Your task to perform on an android device: Open the phone app and click the voicemail tab. Image 0: 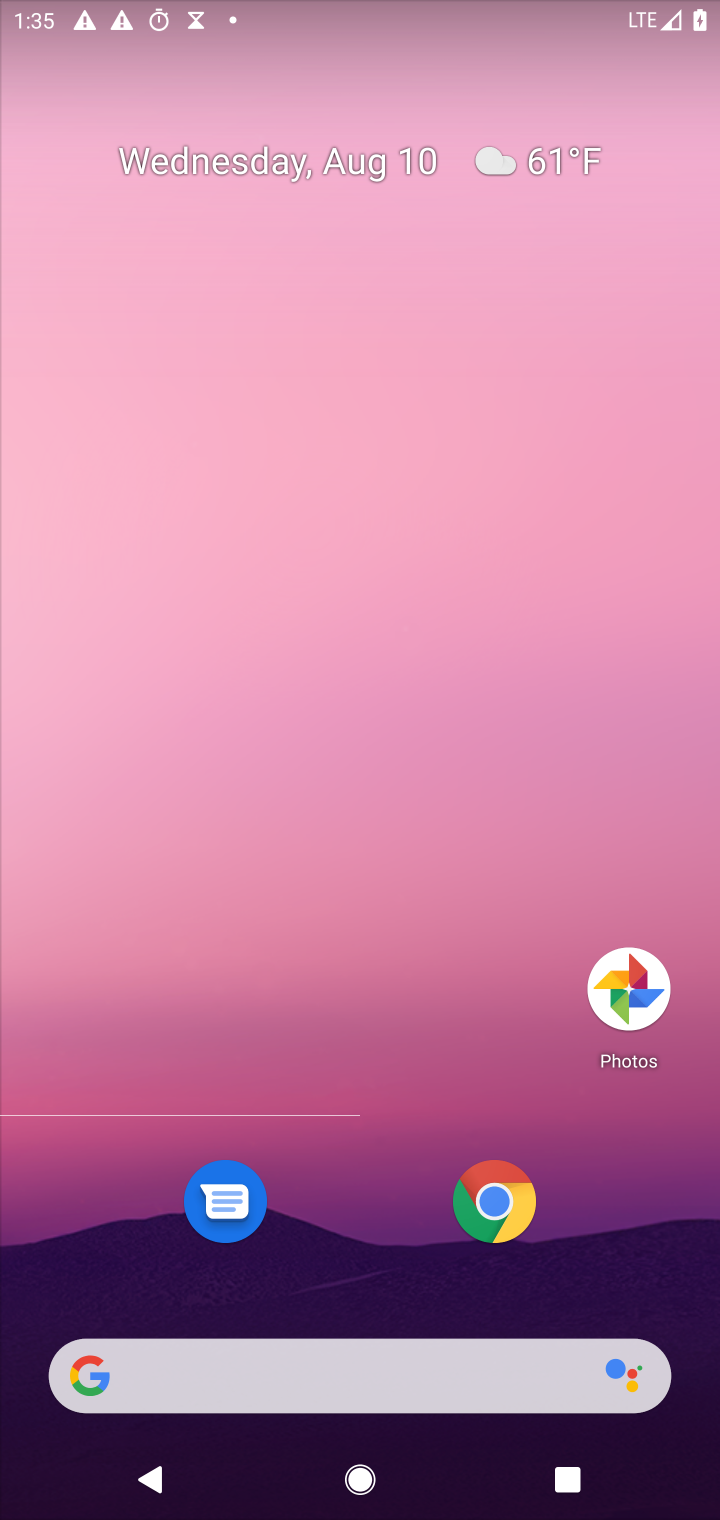
Step 0: press home button
Your task to perform on an android device: Open the phone app and click the voicemail tab. Image 1: 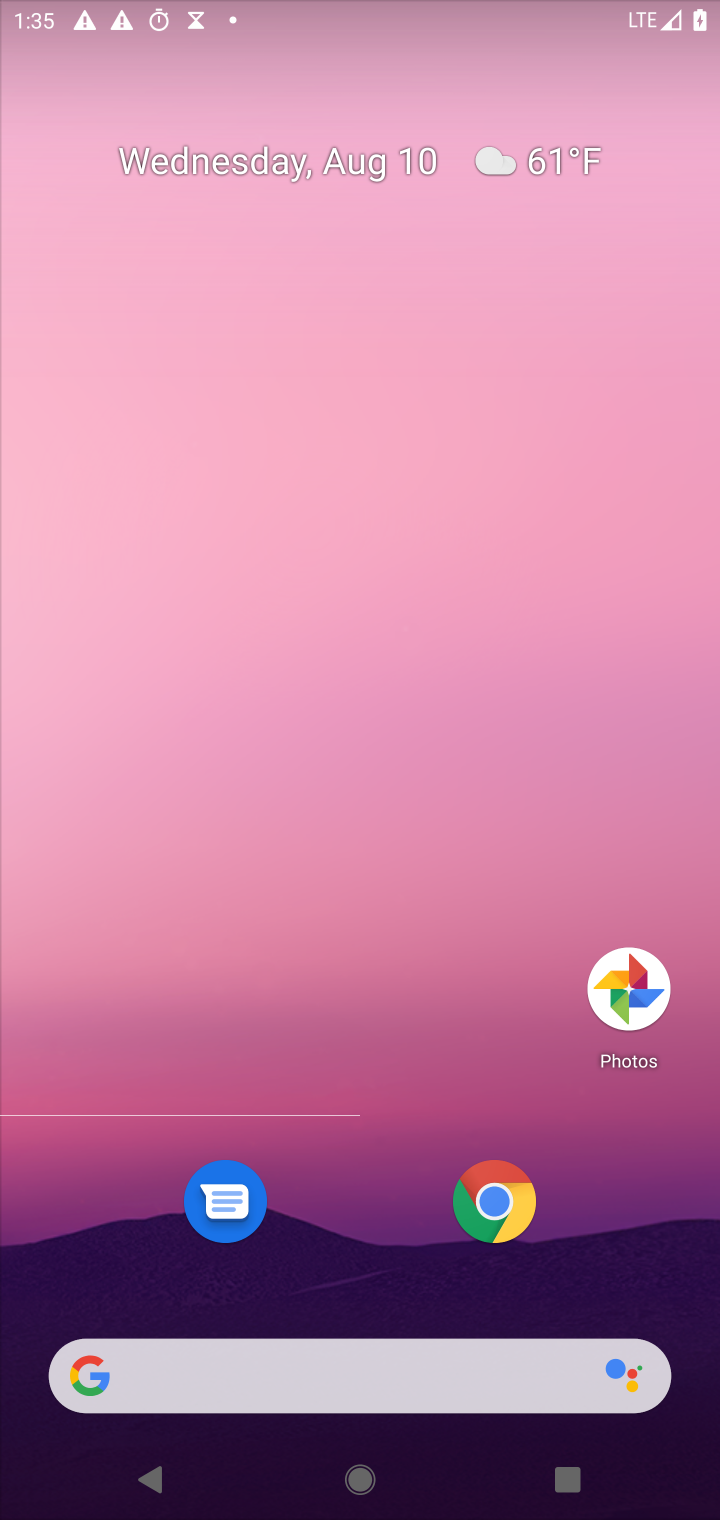
Step 1: drag from (363, 1158) to (265, 107)
Your task to perform on an android device: Open the phone app and click the voicemail tab. Image 2: 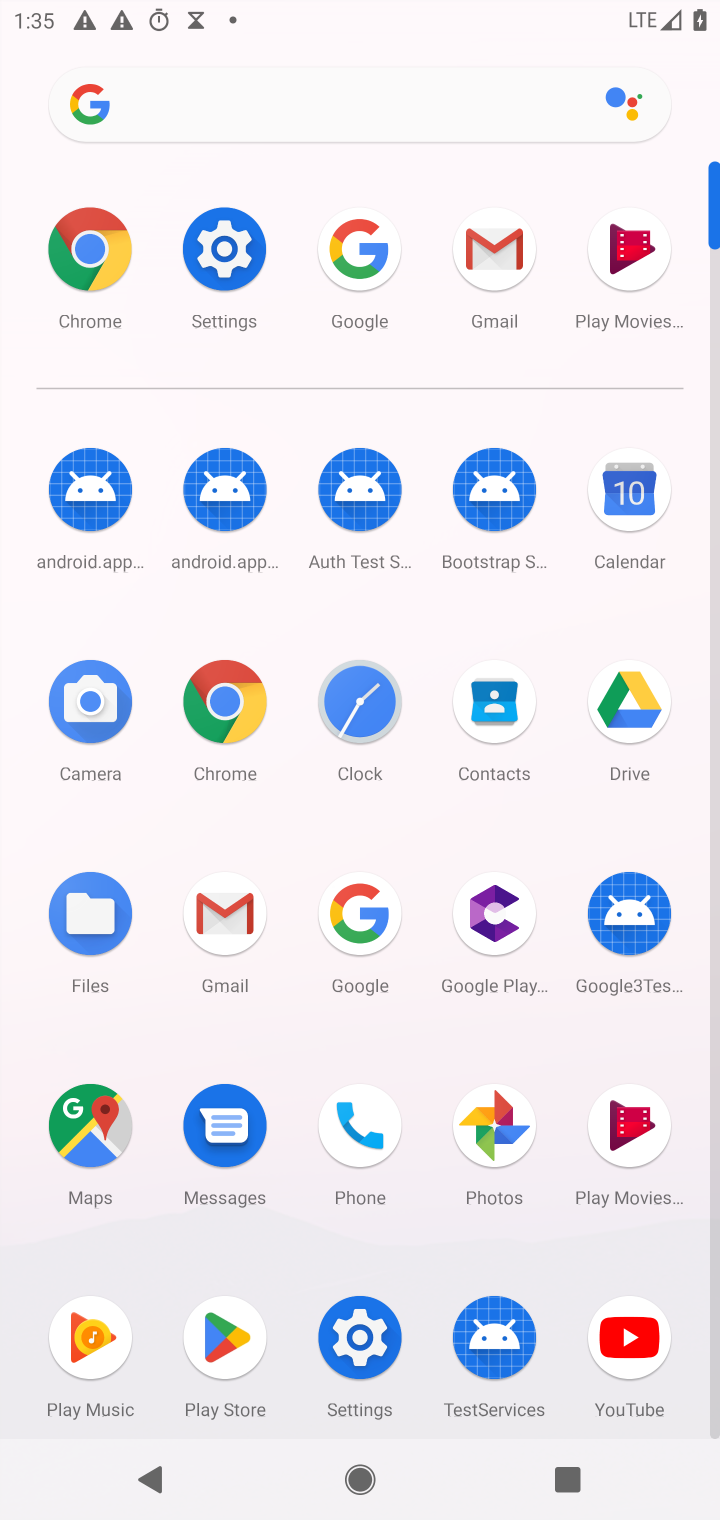
Step 2: click (368, 1140)
Your task to perform on an android device: Open the phone app and click the voicemail tab. Image 3: 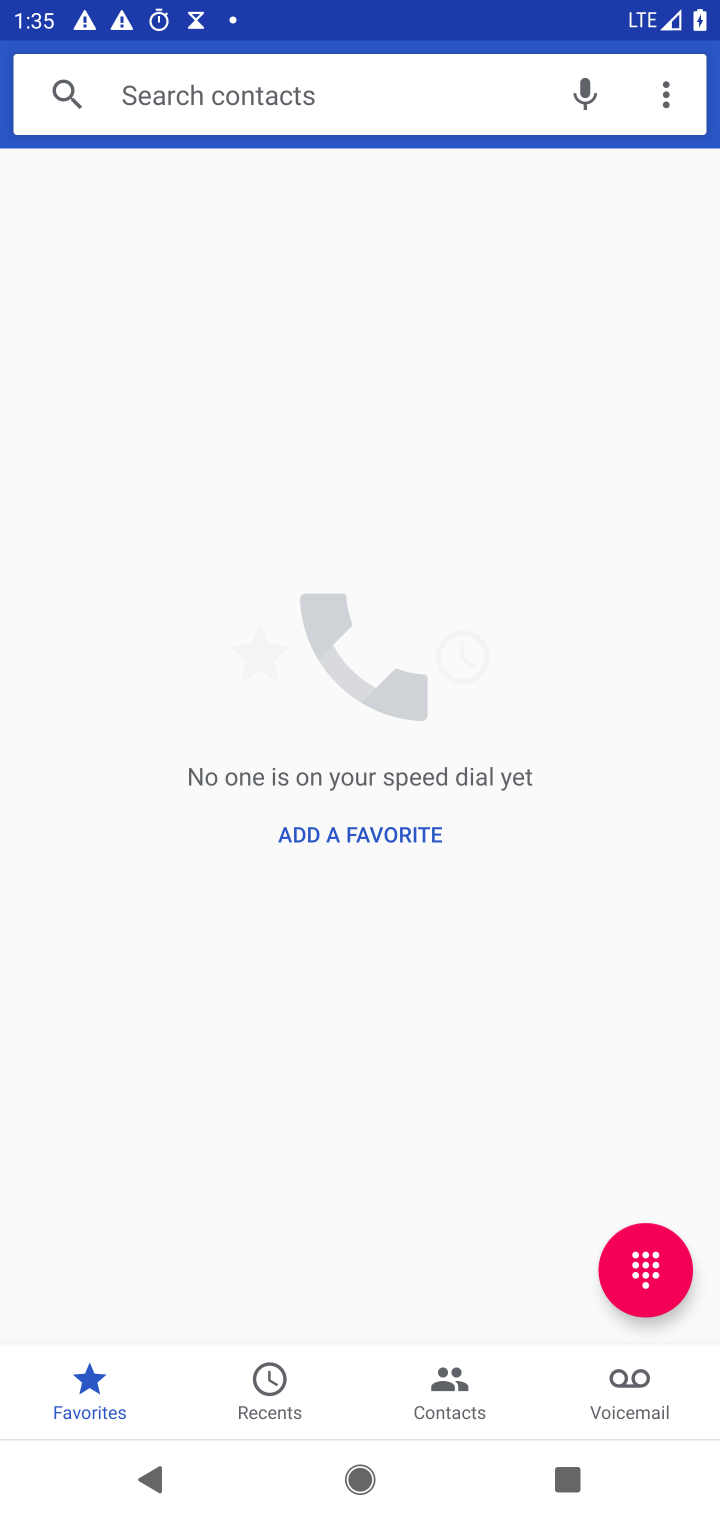
Step 3: click (623, 1388)
Your task to perform on an android device: Open the phone app and click the voicemail tab. Image 4: 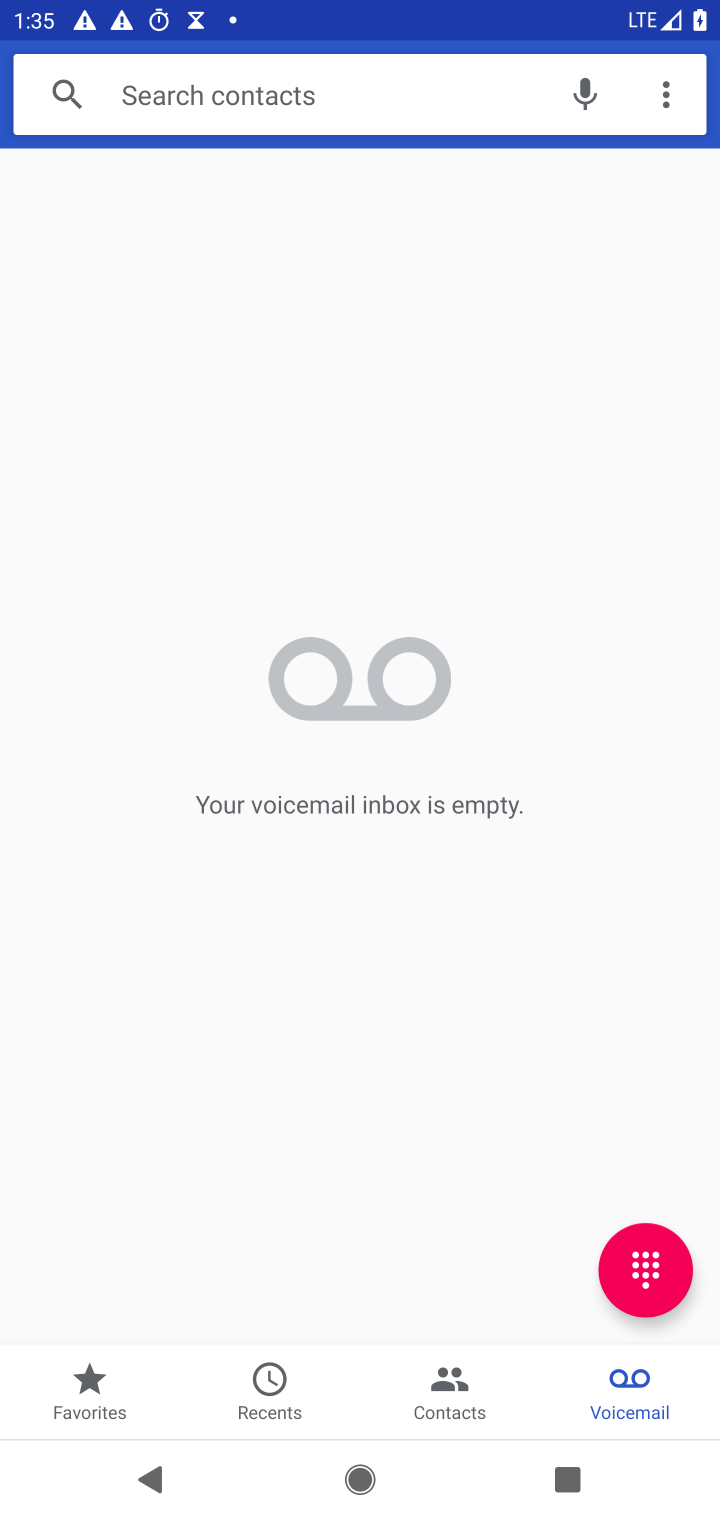
Step 4: task complete